Your task to perform on an android device: Search for vegetarian restaurants on Maps Image 0: 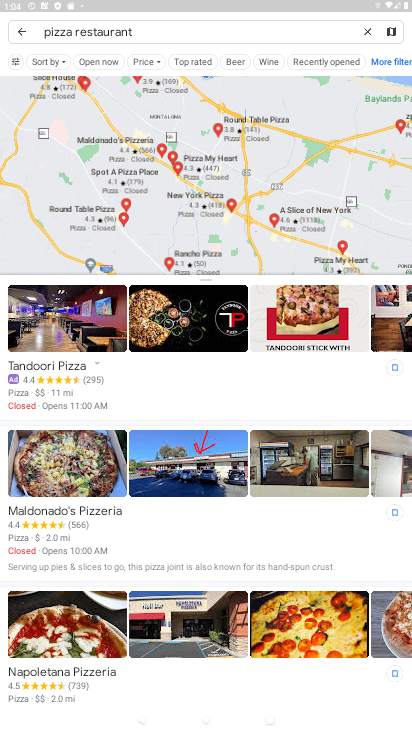
Step 0: click (365, 31)
Your task to perform on an android device: Search for vegetarian restaurants on Maps Image 1: 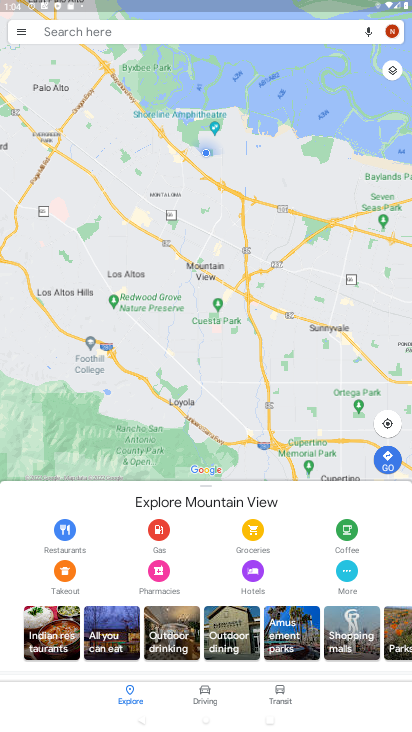
Step 1: click (108, 33)
Your task to perform on an android device: Search for vegetarian restaurants on Maps Image 2: 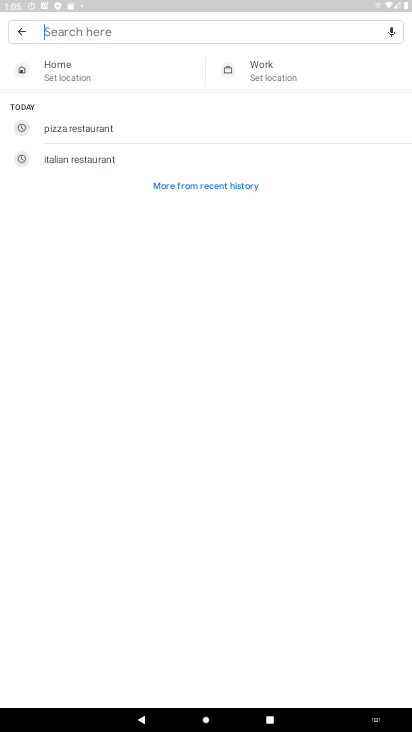
Step 2: type "vegetarian restaurants"
Your task to perform on an android device: Search for vegetarian restaurants on Maps Image 3: 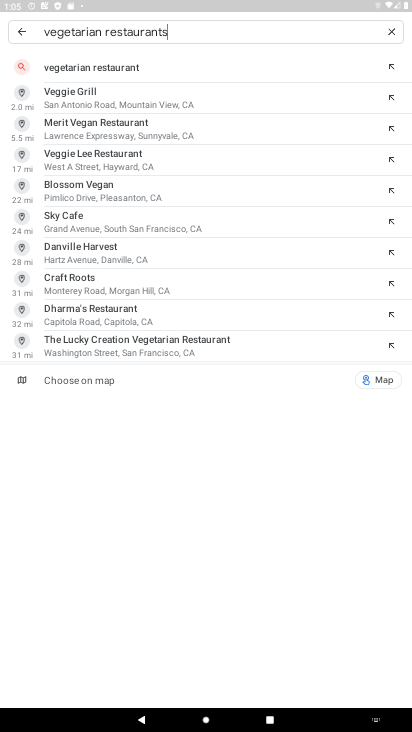
Step 3: click (131, 70)
Your task to perform on an android device: Search for vegetarian restaurants on Maps Image 4: 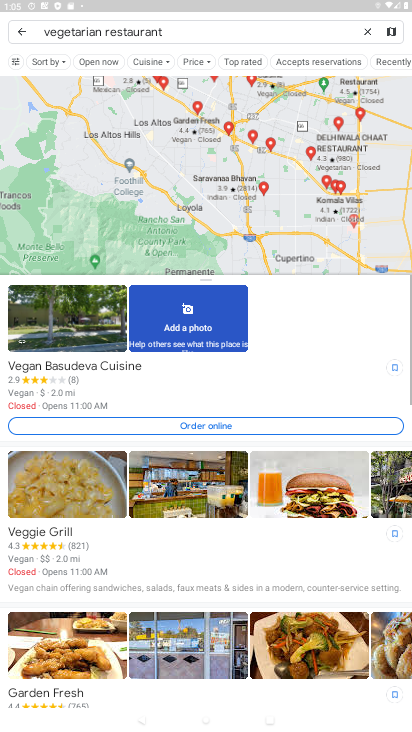
Step 4: task complete